Your task to perform on an android device: Open the downloads Image 0: 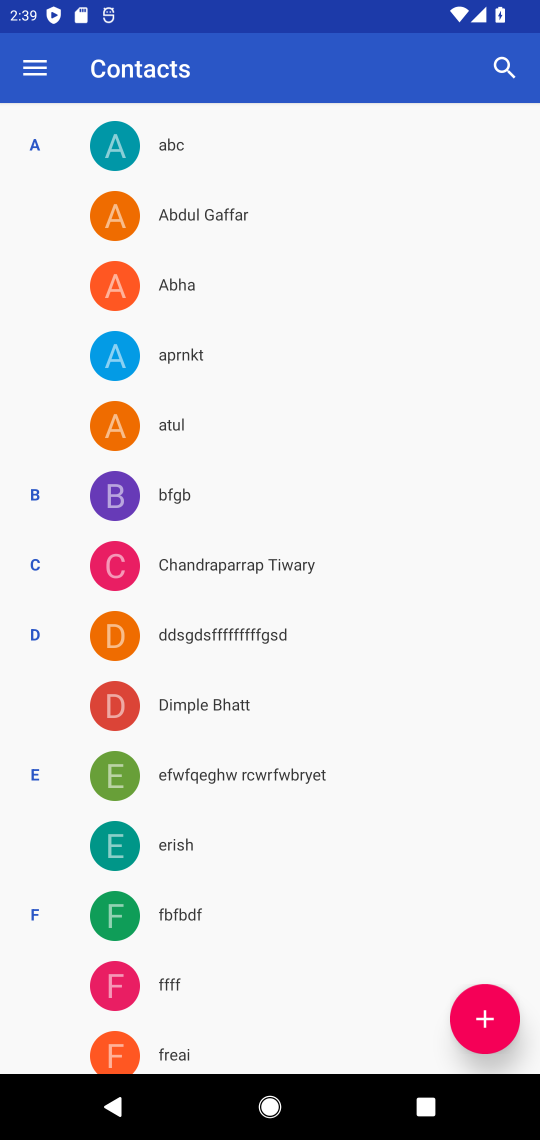
Step 0: press home button
Your task to perform on an android device: Open the downloads Image 1: 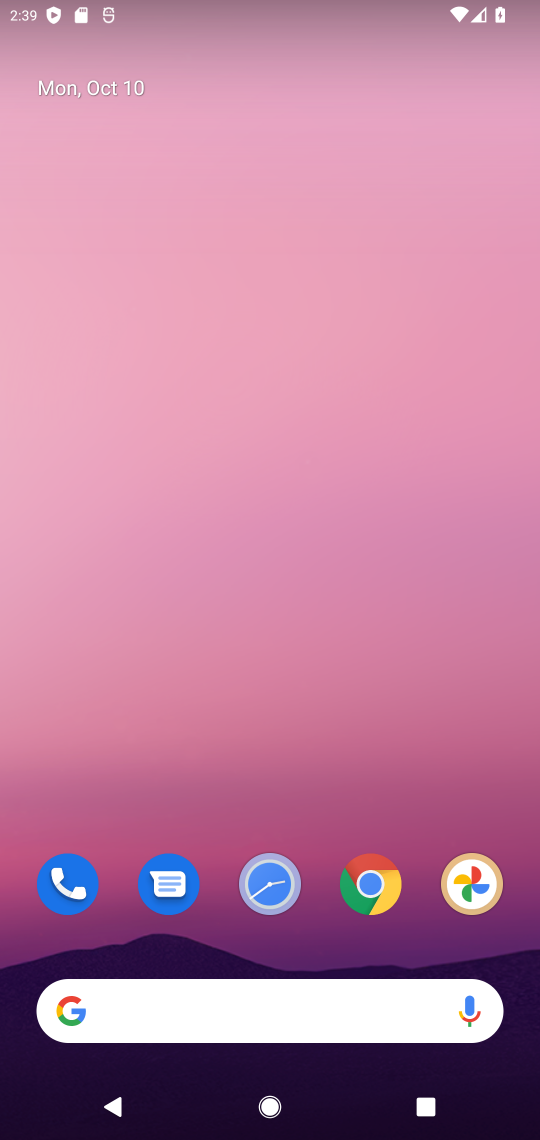
Step 1: drag from (224, 963) to (223, 587)
Your task to perform on an android device: Open the downloads Image 2: 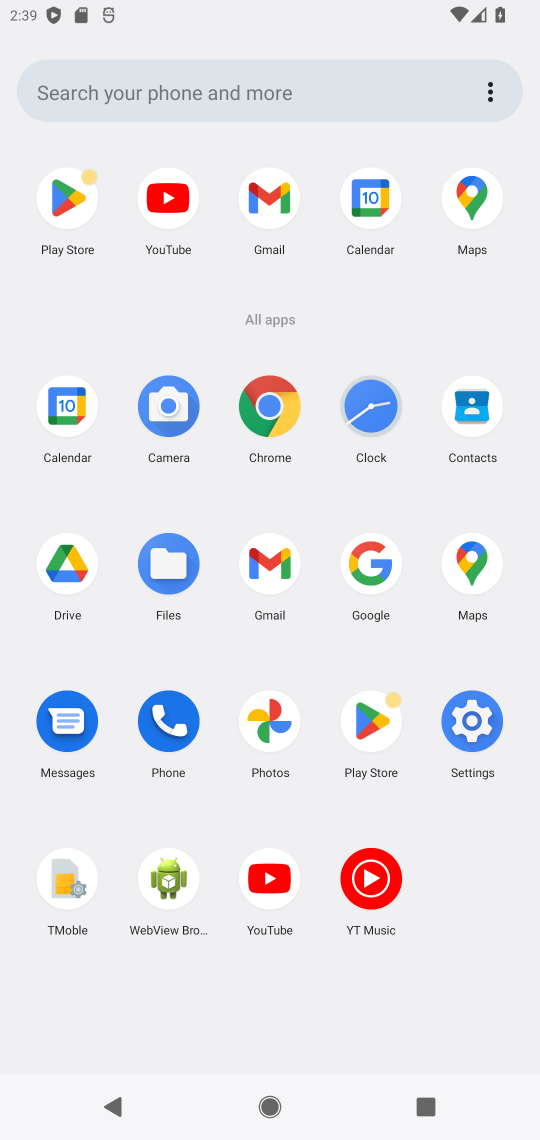
Step 2: click (159, 571)
Your task to perform on an android device: Open the downloads Image 3: 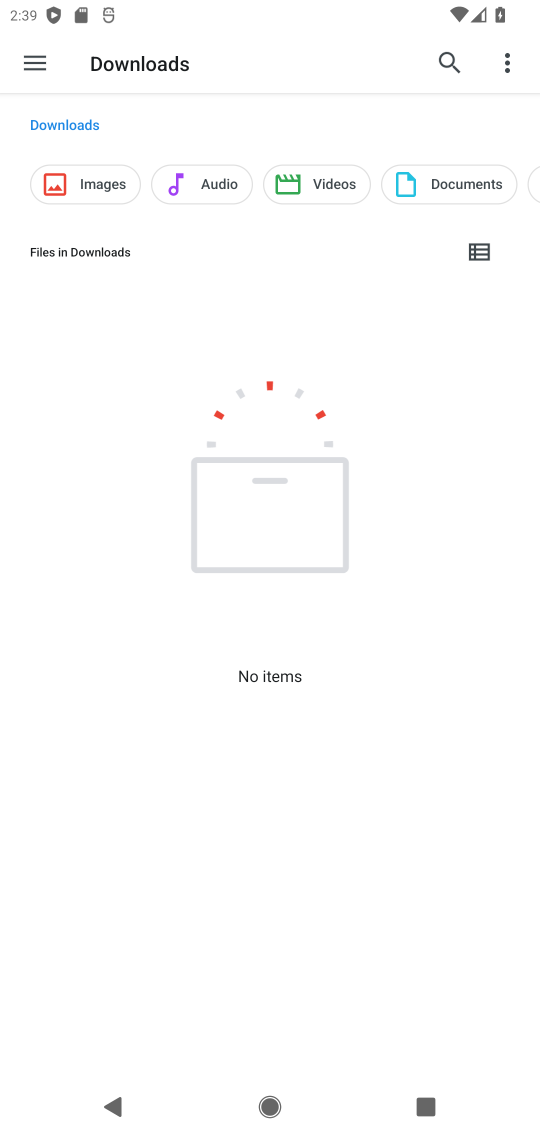
Step 3: task complete